Your task to perform on an android device: turn off improve location accuracy Image 0: 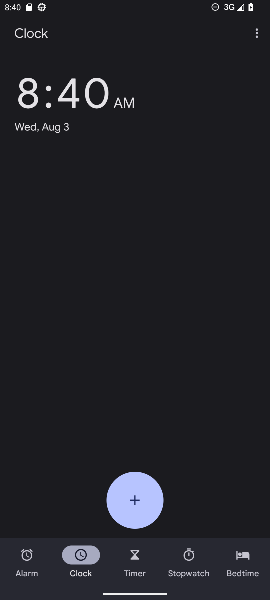
Step 0: press home button
Your task to perform on an android device: turn off improve location accuracy Image 1: 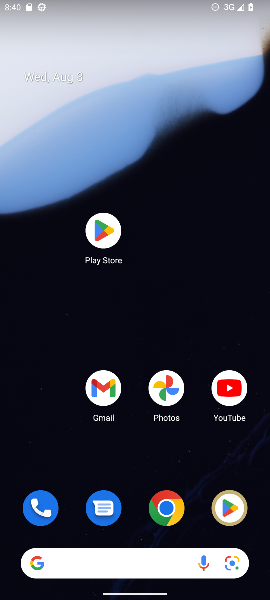
Step 1: drag from (144, 544) to (246, 36)
Your task to perform on an android device: turn off improve location accuracy Image 2: 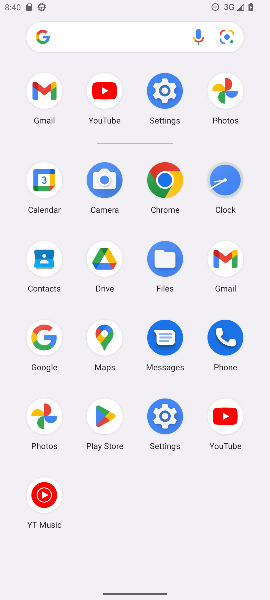
Step 2: click (164, 424)
Your task to perform on an android device: turn off improve location accuracy Image 3: 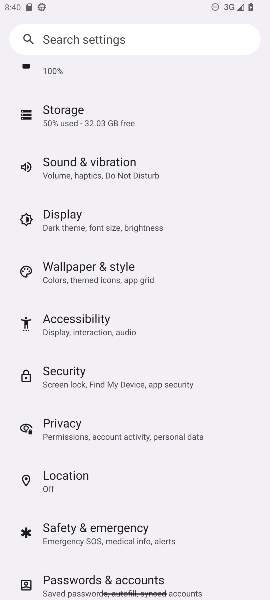
Step 3: click (82, 477)
Your task to perform on an android device: turn off improve location accuracy Image 4: 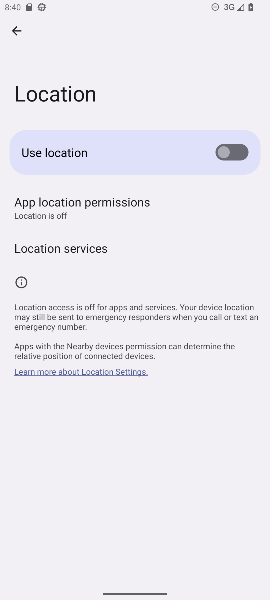
Step 4: click (24, 274)
Your task to perform on an android device: turn off improve location accuracy Image 5: 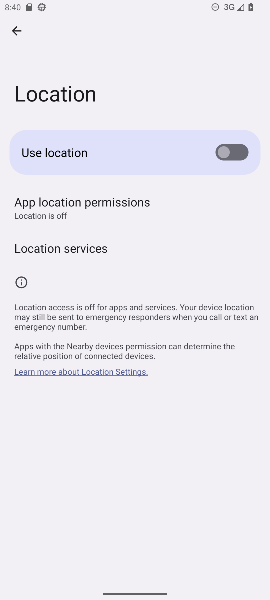
Step 5: click (44, 159)
Your task to perform on an android device: turn off improve location accuracy Image 6: 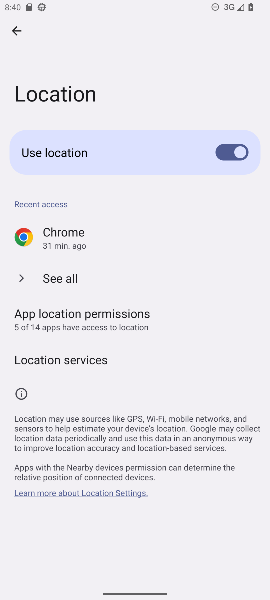
Step 6: click (44, 159)
Your task to perform on an android device: turn off improve location accuracy Image 7: 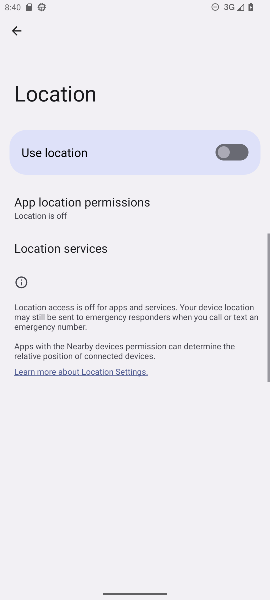
Step 7: click (39, 250)
Your task to perform on an android device: turn off improve location accuracy Image 8: 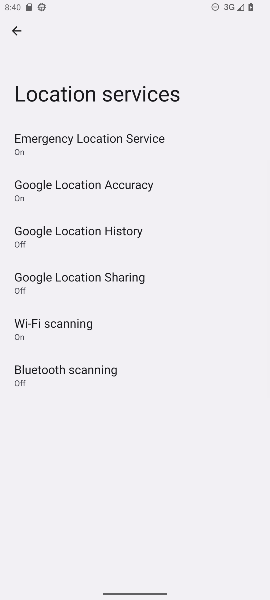
Step 8: click (107, 189)
Your task to perform on an android device: turn off improve location accuracy Image 9: 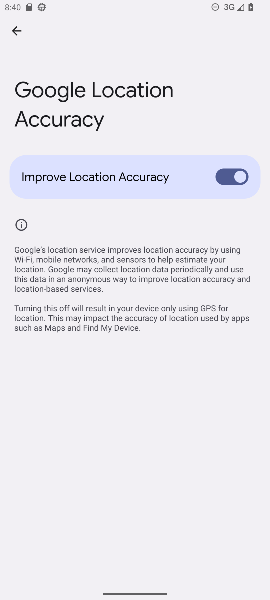
Step 9: click (232, 175)
Your task to perform on an android device: turn off improve location accuracy Image 10: 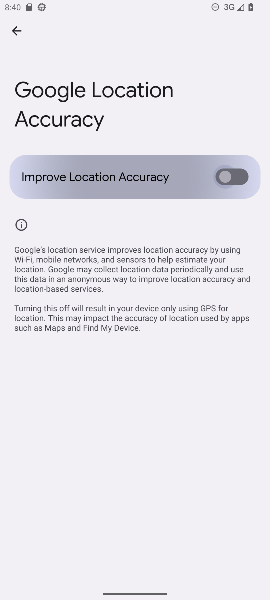
Step 10: task complete